Your task to perform on an android device: turn on the 24-hour format for clock Image 0: 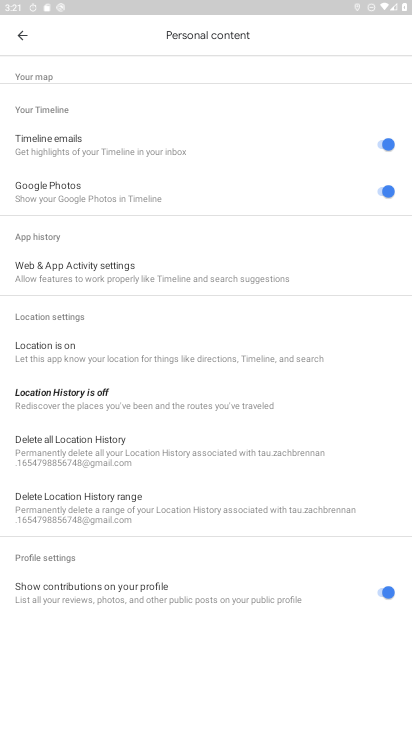
Step 0: press home button
Your task to perform on an android device: turn on the 24-hour format for clock Image 1: 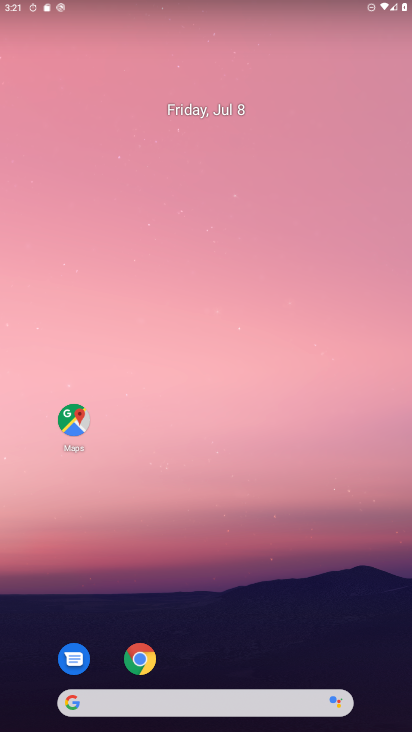
Step 1: drag from (198, 646) to (315, 2)
Your task to perform on an android device: turn on the 24-hour format for clock Image 2: 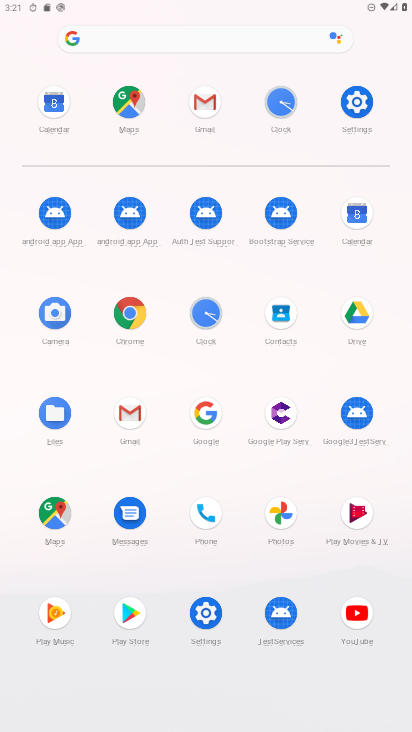
Step 2: click (206, 313)
Your task to perform on an android device: turn on the 24-hour format for clock Image 3: 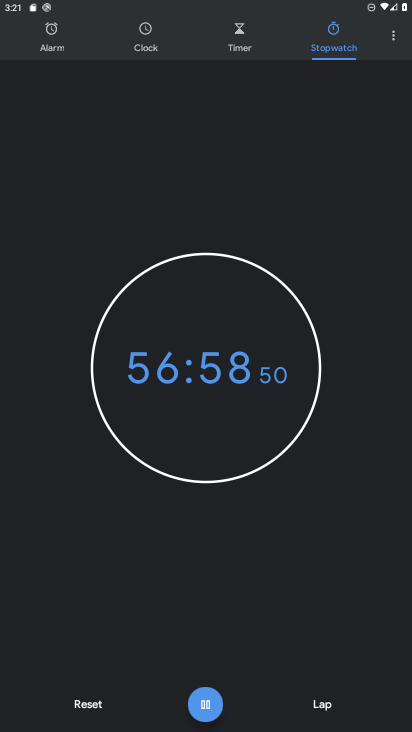
Step 3: click (388, 31)
Your task to perform on an android device: turn on the 24-hour format for clock Image 4: 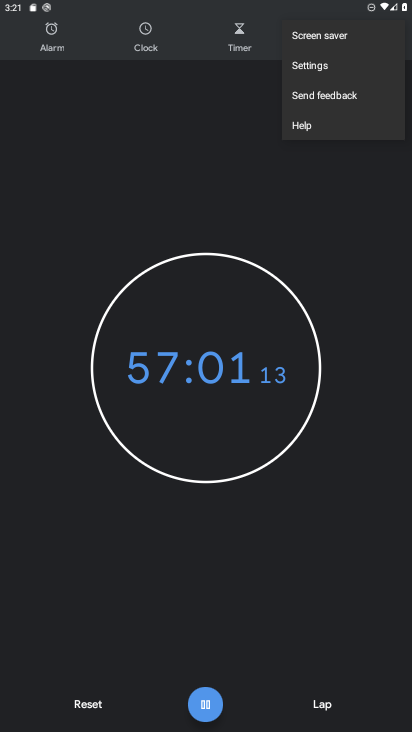
Step 4: click (304, 69)
Your task to perform on an android device: turn on the 24-hour format for clock Image 5: 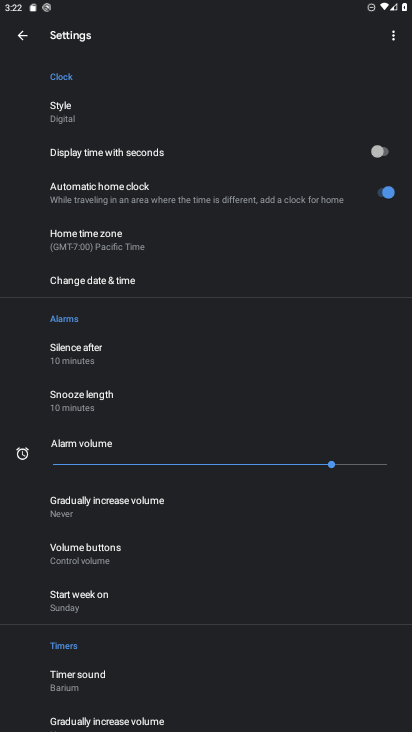
Step 5: click (113, 280)
Your task to perform on an android device: turn on the 24-hour format for clock Image 6: 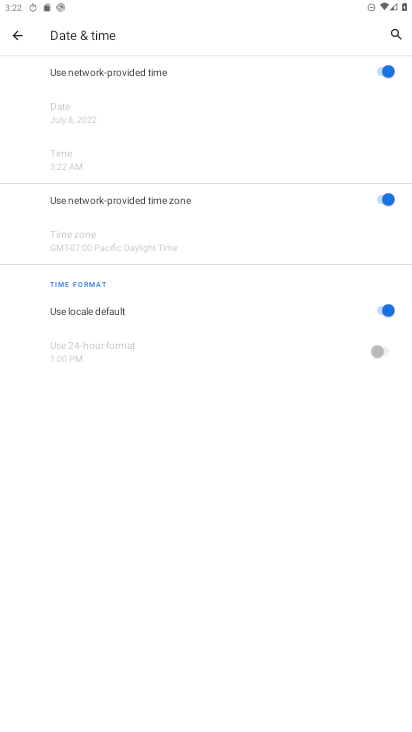
Step 6: click (378, 311)
Your task to perform on an android device: turn on the 24-hour format for clock Image 7: 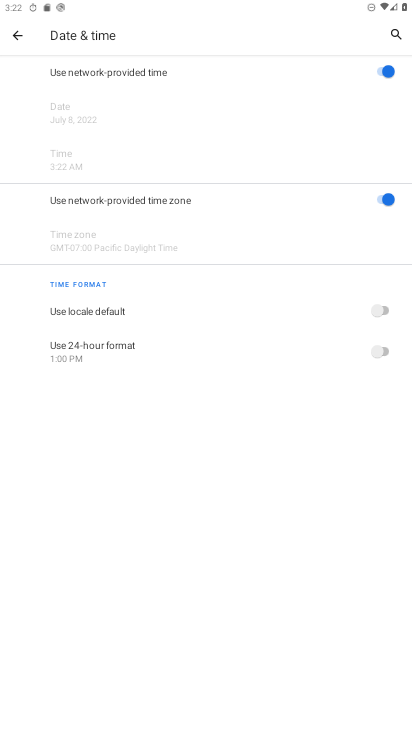
Step 7: click (386, 348)
Your task to perform on an android device: turn on the 24-hour format for clock Image 8: 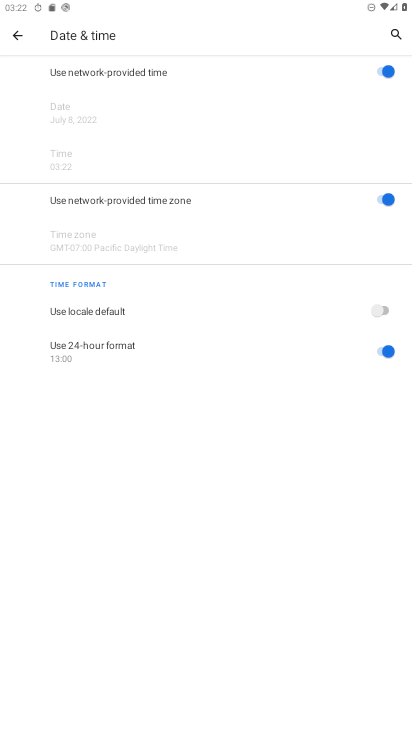
Step 8: task complete